Your task to perform on an android device: stop showing notifications on the lock screen Image 0: 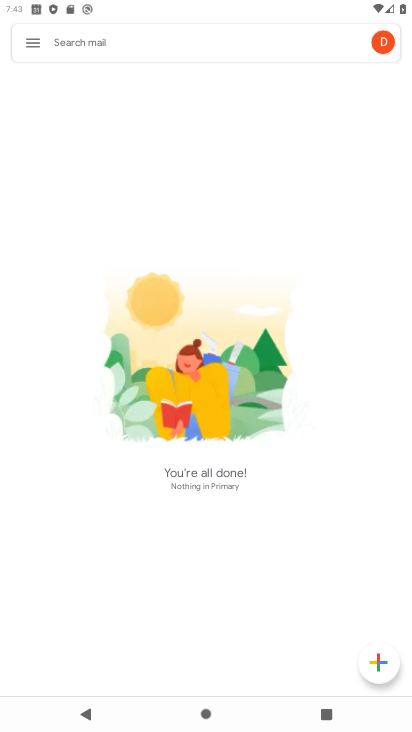
Step 0: press home button
Your task to perform on an android device: stop showing notifications on the lock screen Image 1: 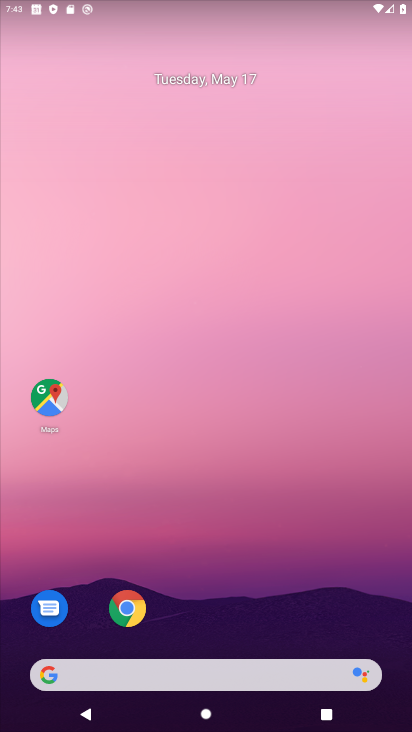
Step 1: drag from (189, 603) to (279, 7)
Your task to perform on an android device: stop showing notifications on the lock screen Image 2: 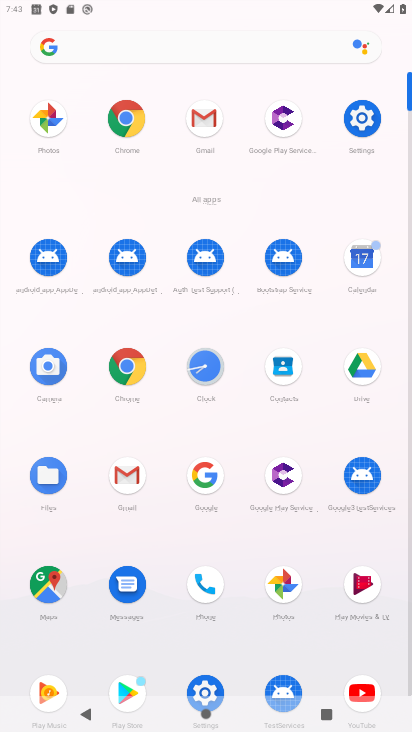
Step 2: click (369, 124)
Your task to perform on an android device: stop showing notifications on the lock screen Image 3: 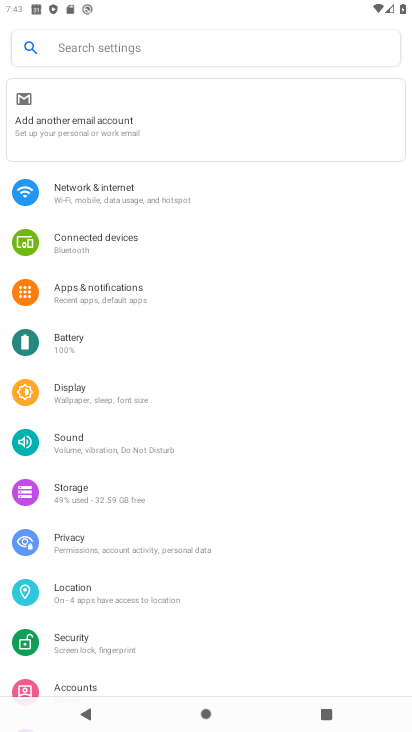
Step 3: click (118, 291)
Your task to perform on an android device: stop showing notifications on the lock screen Image 4: 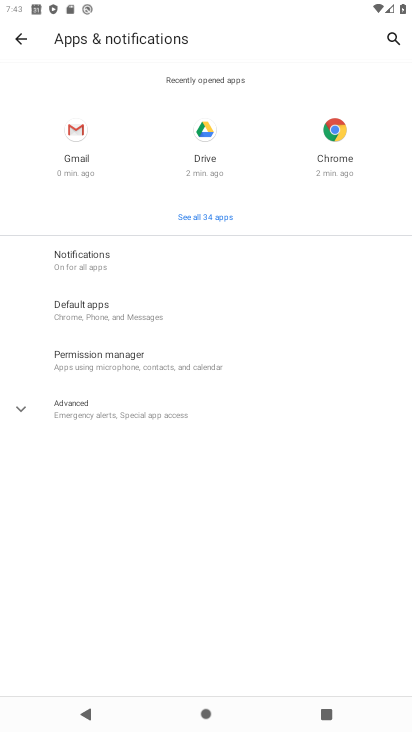
Step 4: click (89, 262)
Your task to perform on an android device: stop showing notifications on the lock screen Image 5: 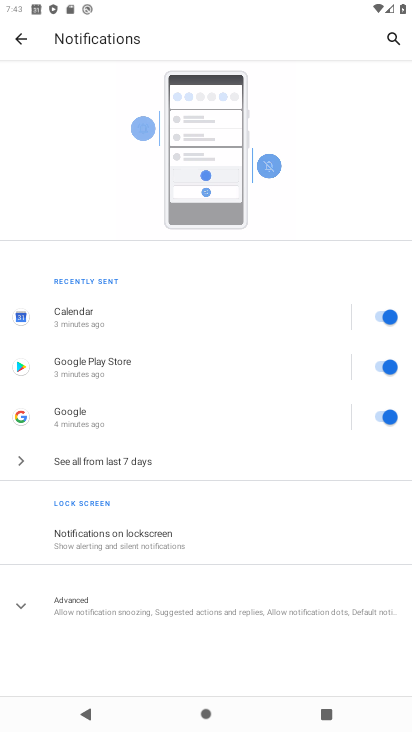
Step 5: click (119, 542)
Your task to perform on an android device: stop showing notifications on the lock screen Image 6: 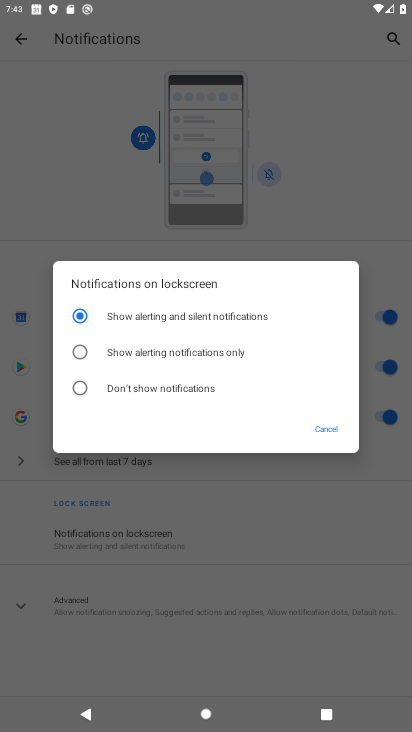
Step 6: click (180, 383)
Your task to perform on an android device: stop showing notifications on the lock screen Image 7: 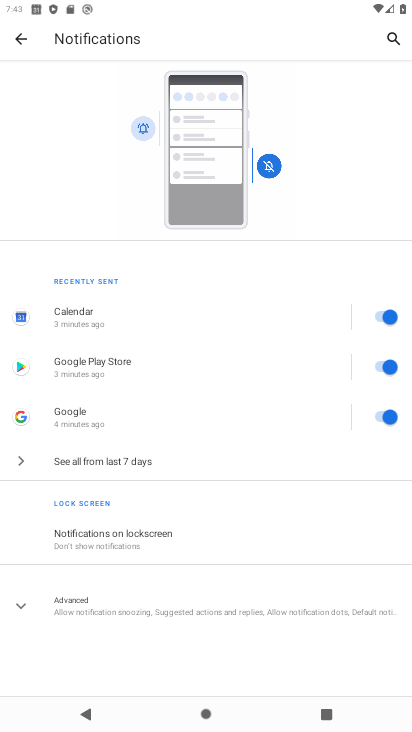
Step 7: task complete